Your task to perform on an android device: toggle javascript in the chrome app Image 0: 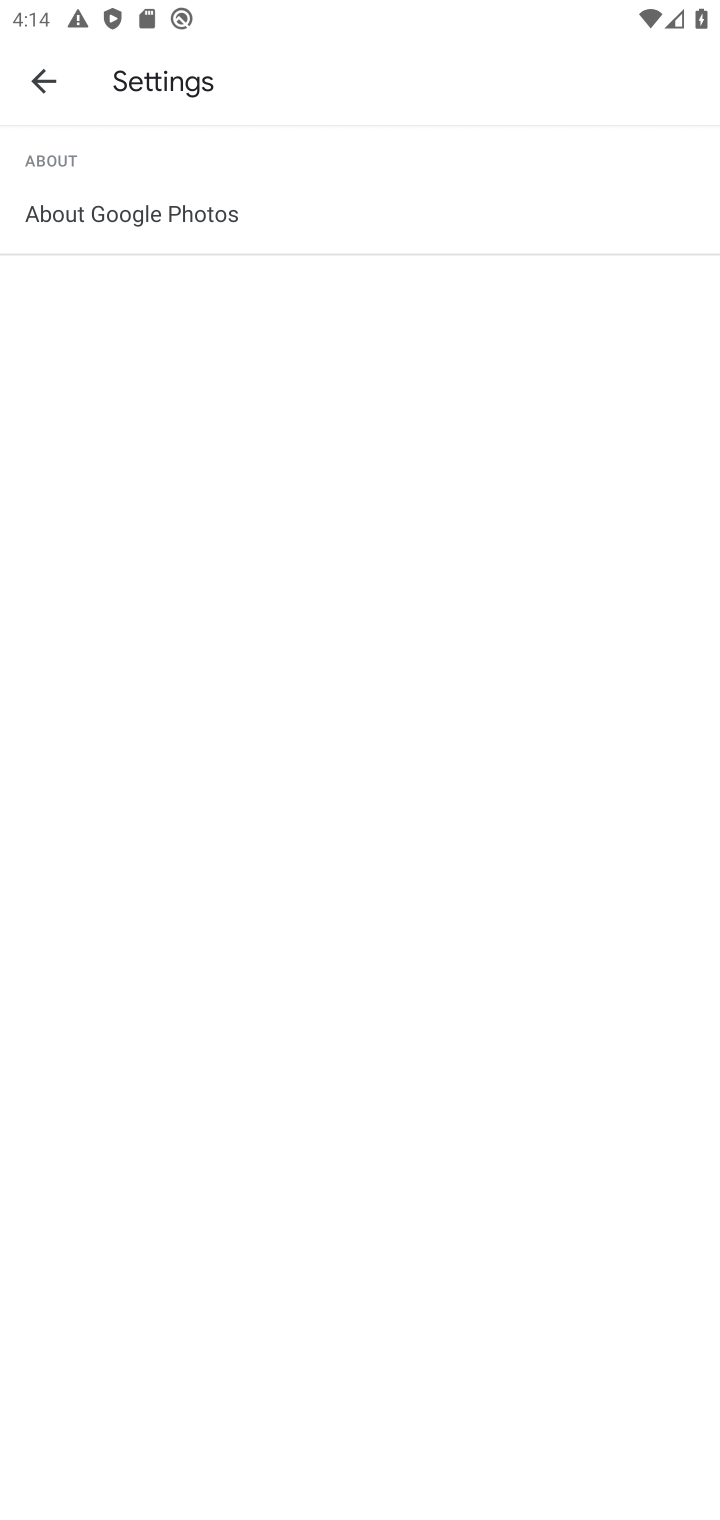
Step 0: click (669, 16)
Your task to perform on an android device: toggle javascript in the chrome app Image 1: 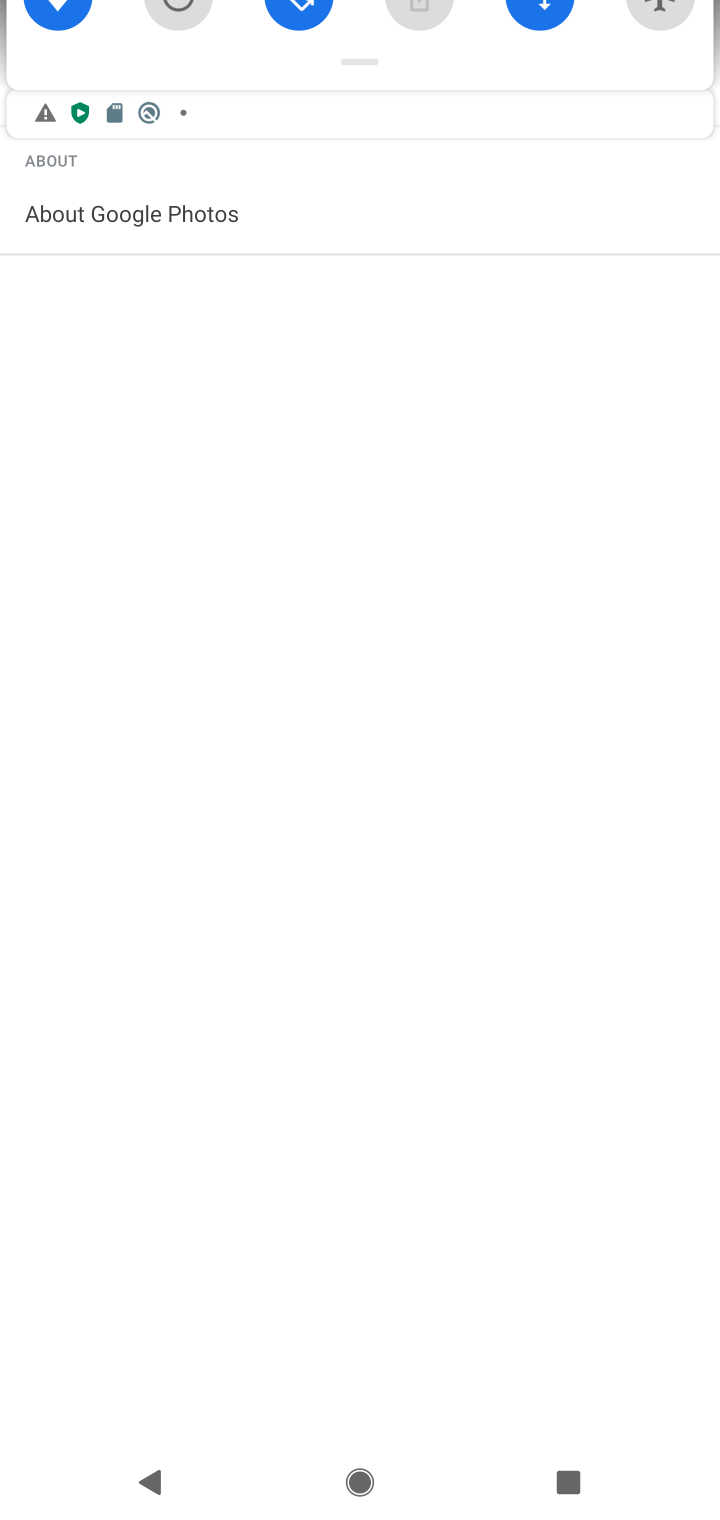
Step 1: task complete